Your task to perform on an android device: Check the news Image 0: 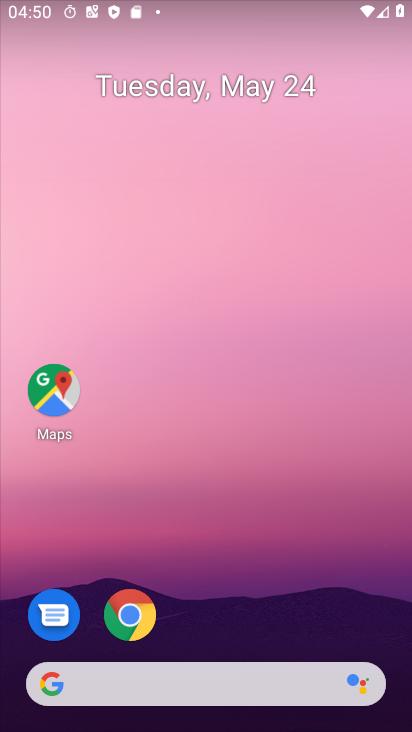
Step 0: click (224, 681)
Your task to perform on an android device: Check the news Image 1: 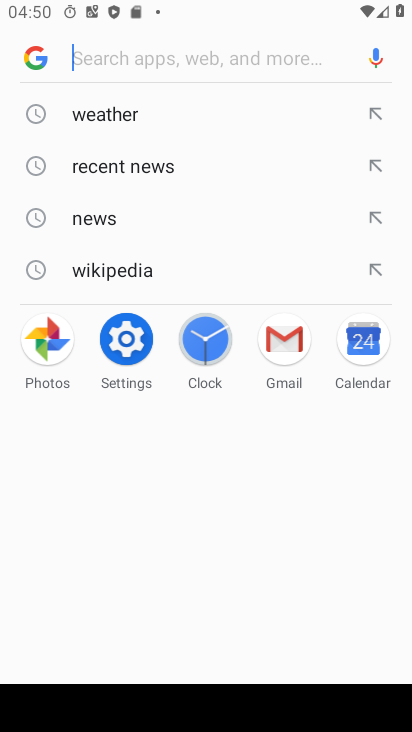
Step 1: click (99, 223)
Your task to perform on an android device: Check the news Image 2: 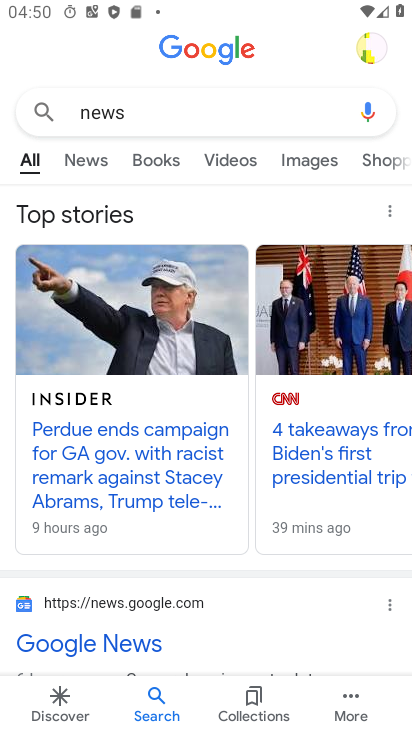
Step 2: task complete